Your task to perform on an android device: find snoozed emails in the gmail app Image 0: 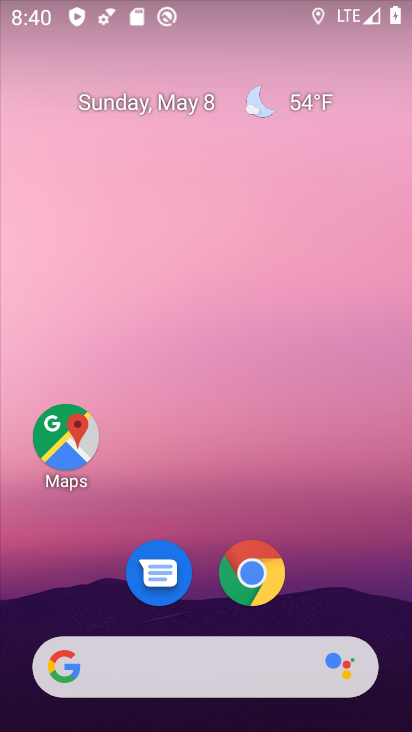
Step 0: drag from (221, 728) to (226, 27)
Your task to perform on an android device: find snoozed emails in the gmail app Image 1: 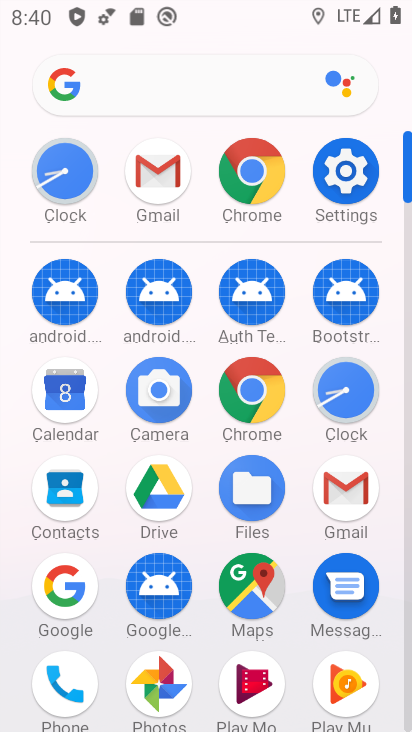
Step 1: click (344, 488)
Your task to perform on an android device: find snoozed emails in the gmail app Image 2: 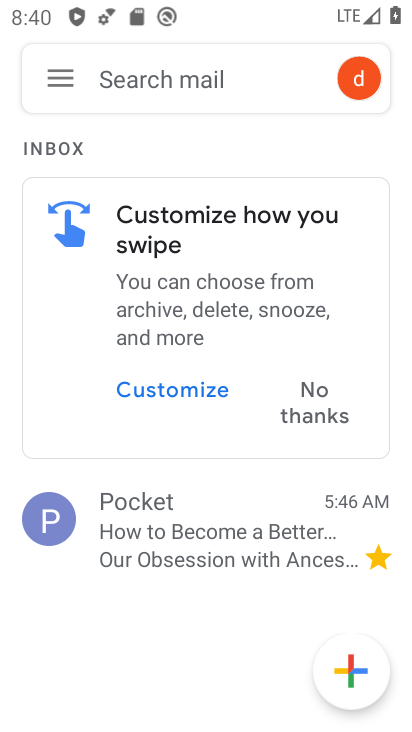
Step 2: click (204, 532)
Your task to perform on an android device: find snoozed emails in the gmail app Image 3: 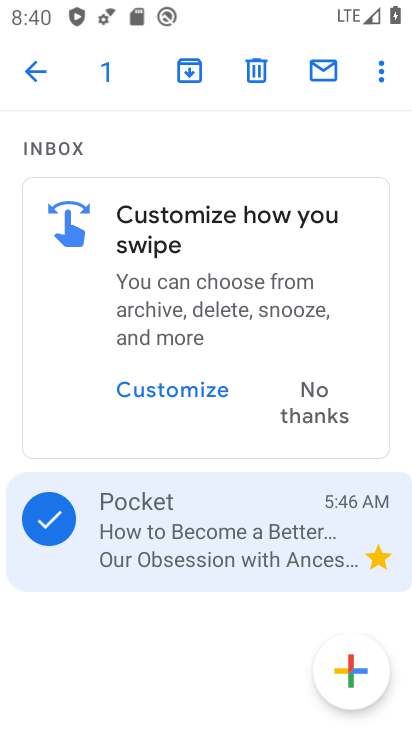
Step 3: click (380, 71)
Your task to perform on an android device: find snoozed emails in the gmail app Image 4: 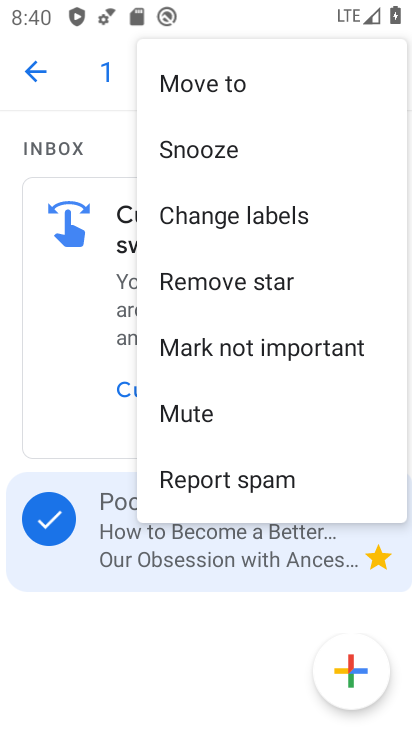
Step 4: click (200, 150)
Your task to perform on an android device: find snoozed emails in the gmail app Image 5: 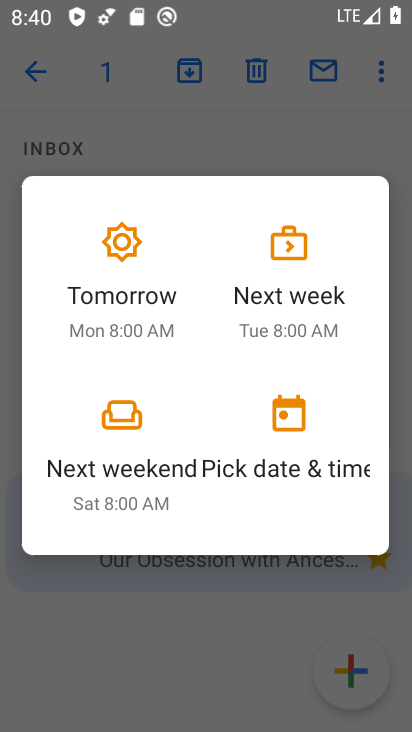
Step 5: click (134, 284)
Your task to perform on an android device: find snoozed emails in the gmail app Image 6: 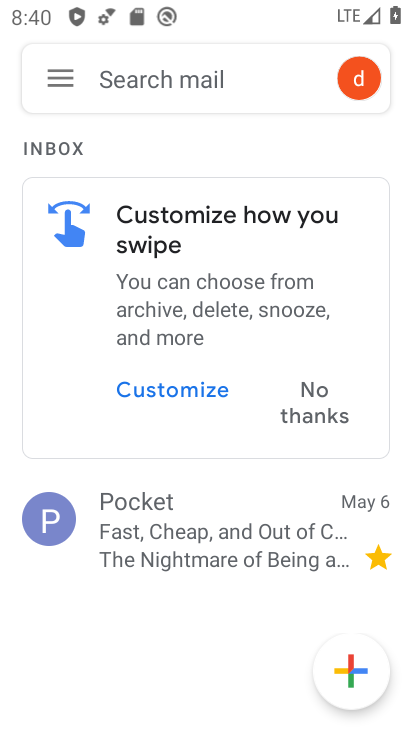
Step 6: task complete